Your task to perform on an android device: Open the calendar and show me this week's events? Image 0: 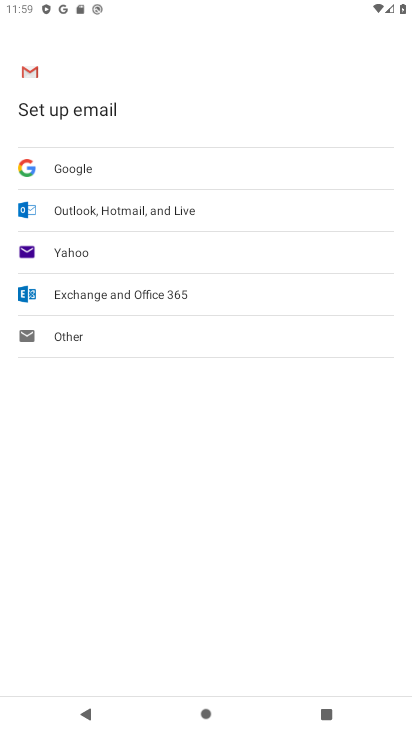
Step 0: drag from (209, 628) to (232, 65)
Your task to perform on an android device: Open the calendar and show me this week's events? Image 1: 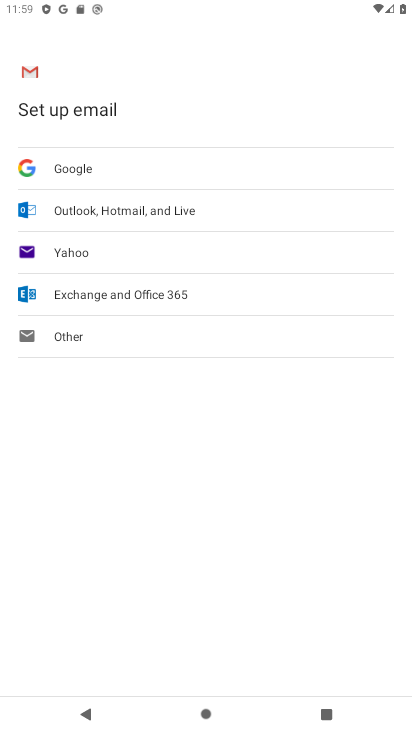
Step 1: press home button
Your task to perform on an android device: Open the calendar and show me this week's events? Image 2: 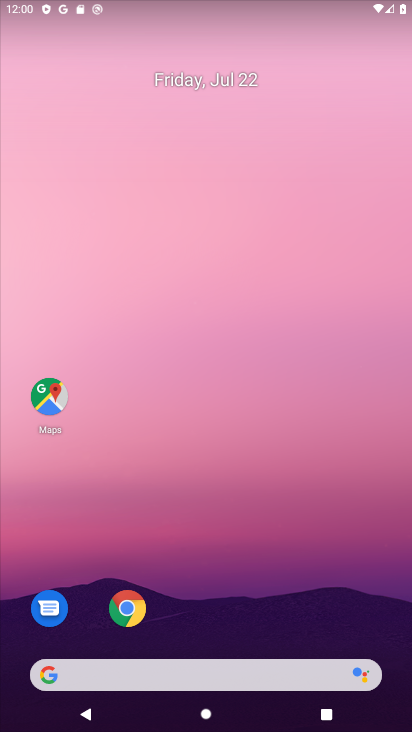
Step 2: drag from (215, 634) to (248, 2)
Your task to perform on an android device: Open the calendar and show me this week's events? Image 3: 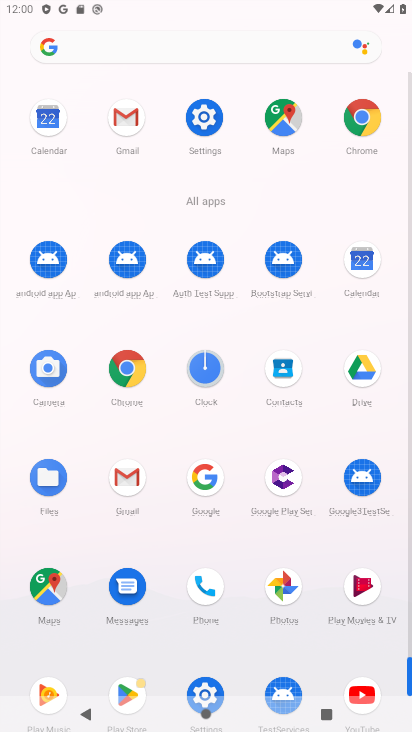
Step 3: click (361, 257)
Your task to perform on an android device: Open the calendar and show me this week's events? Image 4: 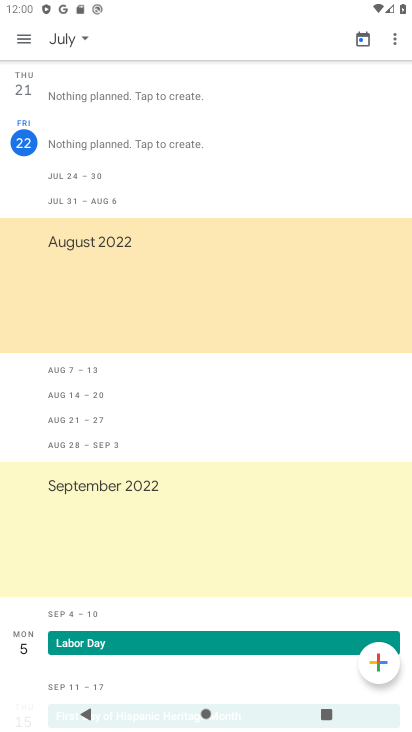
Step 4: click (82, 32)
Your task to perform on an android device: Open the calendar and show me this week's events? Image 5: 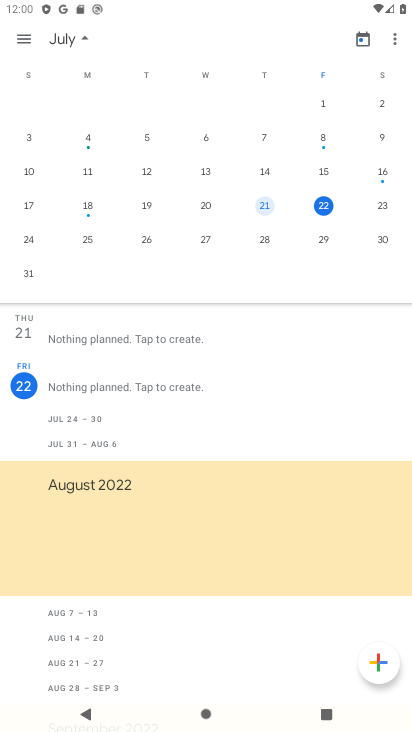
Step 5: click (30, 36)
Your task to perform on an android device: Open the calendar and show me this week's events? Image 6: 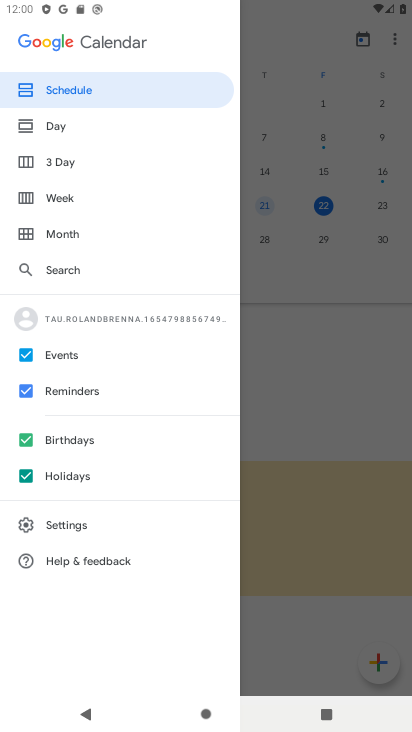
Step 6: click (24, 388)
Your task to perform on an android device: Open the calendar and show me this week's events? Image 7: 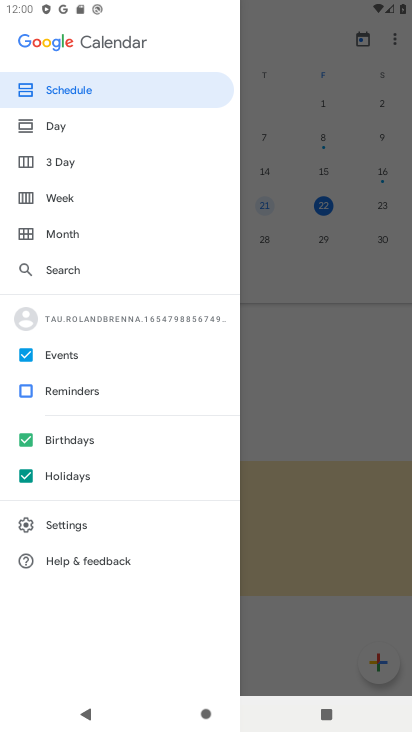
Step 7: click (23, 440)
Your task to perform on an android device: Open the calendar and show me this week's events? Image 8: 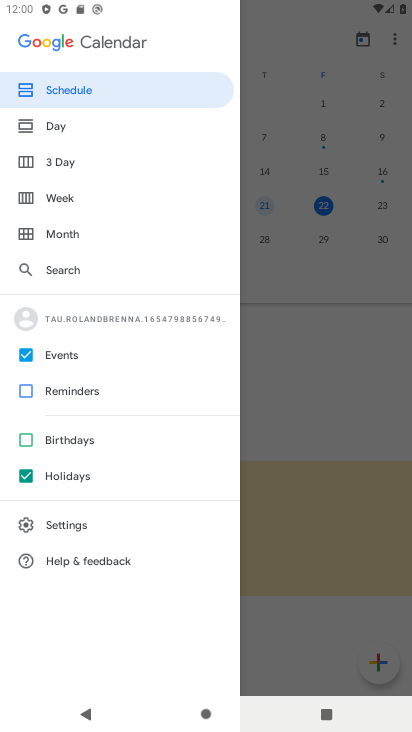
Step 8: click (24, 471)
Your task to perform on an android device: Open the calendar and show me this week's events? Image 9: 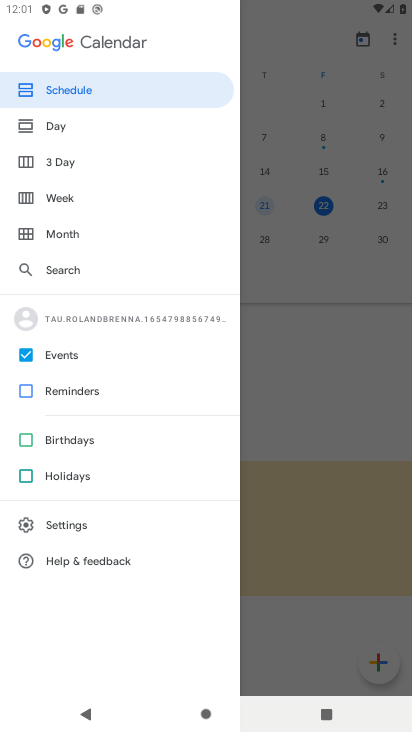
Step 9: click (58, 196)
Your task to perform on an android device: Open the calendar and show me this week's events? Image 10: 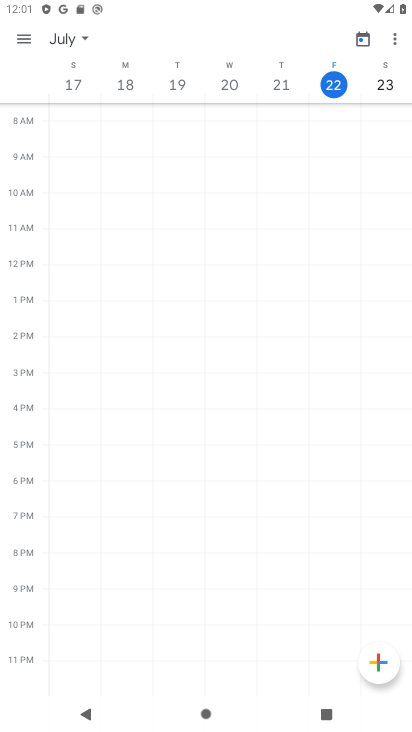
Step 10: task complete